Your task to perform on an android device: set default search engine in the chrome app Image 0: 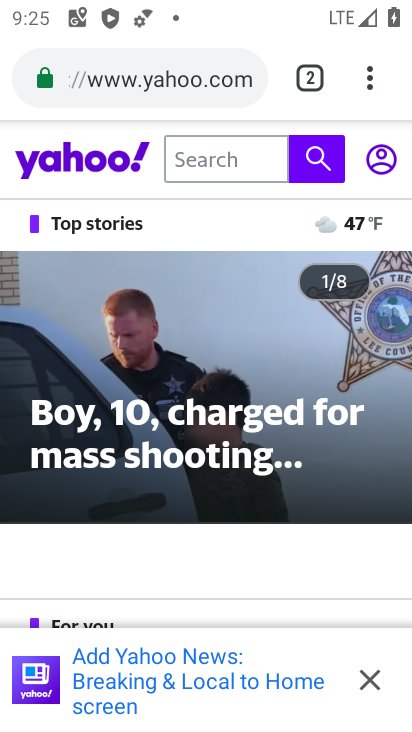
Step 0: drag from (367, 78) to (101, 624)
Your task to perform on an android device: set default search engine in the chrome app Image 1: 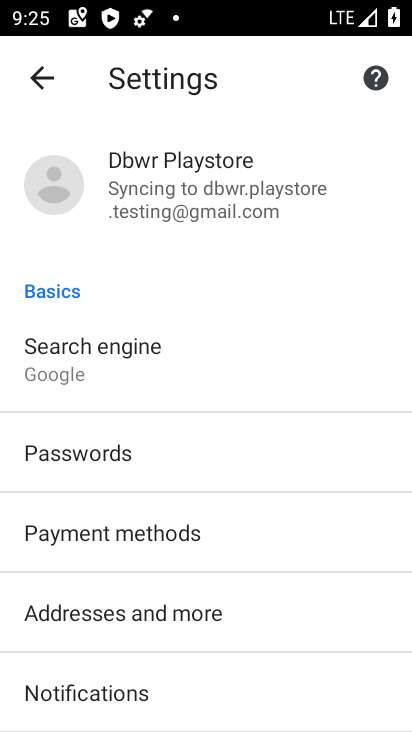
Step 1: click (139, 349)
Your task to perform on an android device: set default search engine in the chrome app Image 2: 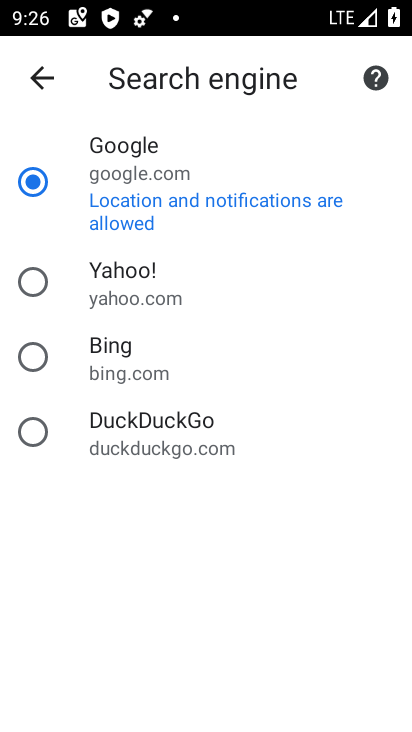
Step 2: task complete